Your task to perform on an android device: find which apps use the phone's location Image 0: 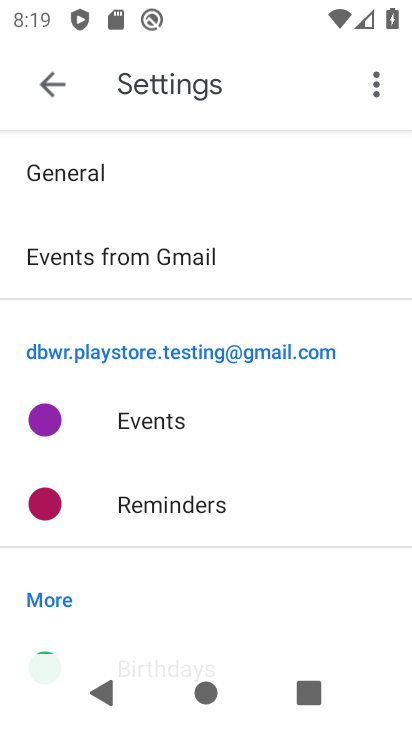
Step 0: press home button
Your task to perform on an android device: find which apps use the phone's location Image 1: 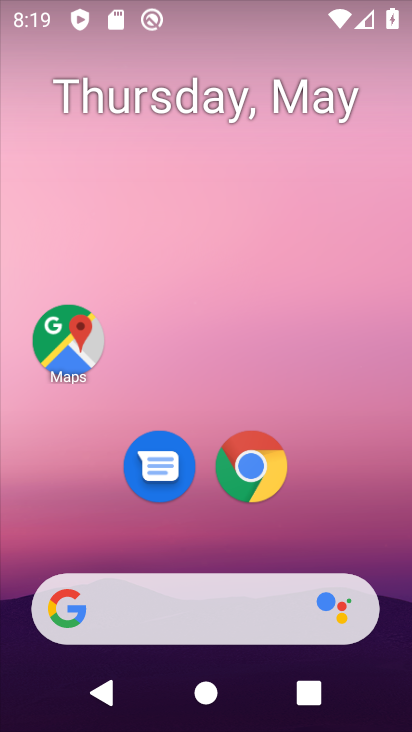
Step 1: drag from (364, 553) to (325, 135)
Your task to perform on an android device: find which apps use the phone's location Image 2: 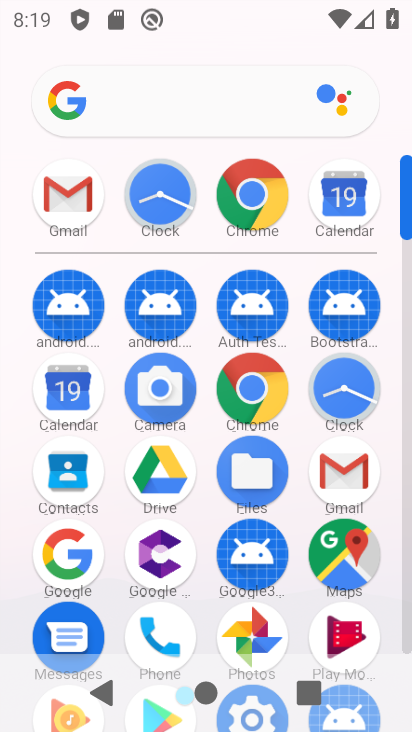
Step 2: click (407, 649)
Your task to perform on an android device: find which apps use the phone's location Image 3: 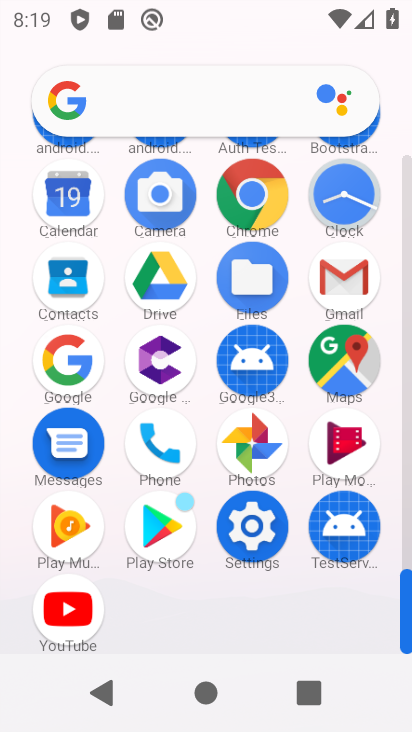
Step 3: click (264, 540)
Your task to perform on an android device: find which apps use the phone's location Image 4: 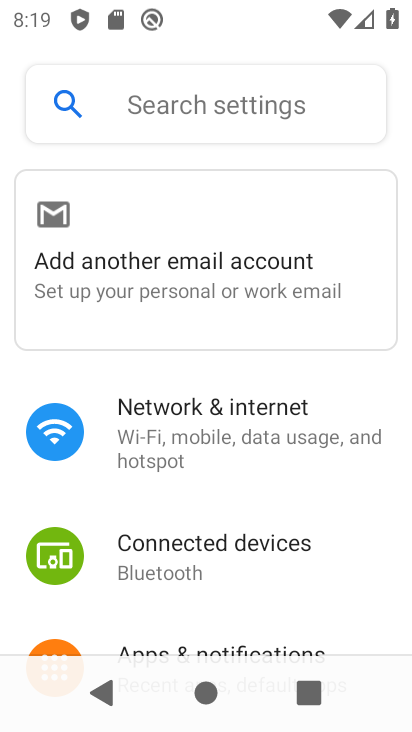
Step 4: drag from (331, 621) to (304, 48)
Your task to perform on an android device: find which apps use the phone's location Image 5: 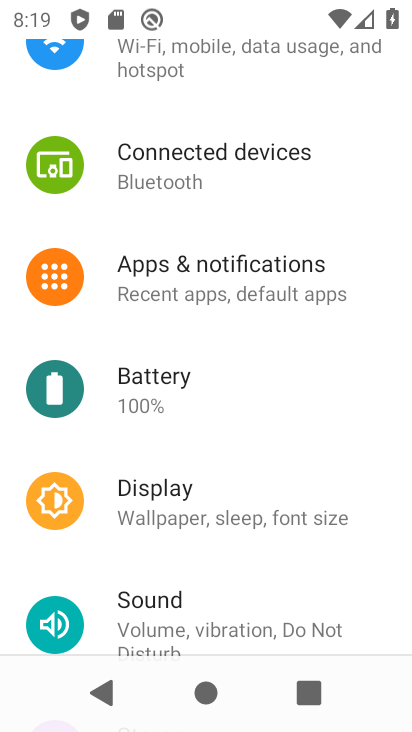
Step 5: drag from (258, 557) to (250, 132)
Your task to perform on an android device: find which apps use the phone's location Image 6: 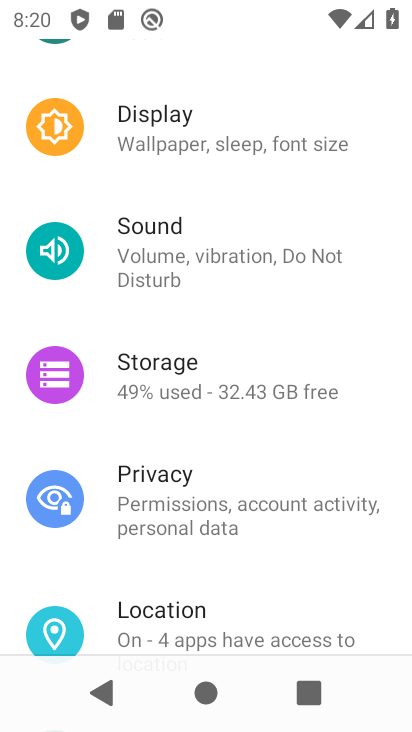
Step 6: click (234, 618)
Your task to perform on an android device: find which apps use the phone's location Image 7: 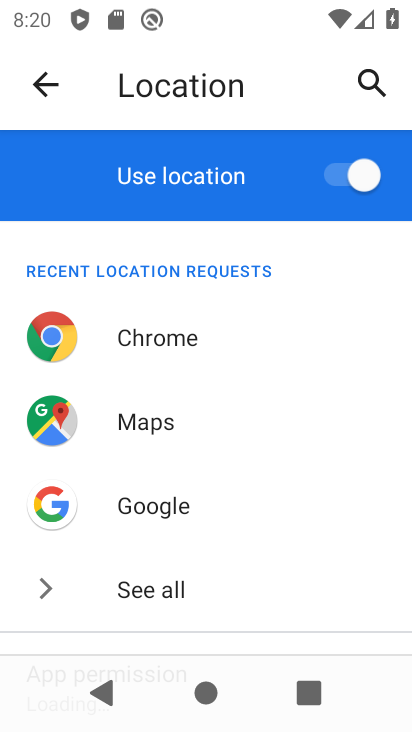
Step 7: drag from (248, 544) to (229, 109)
Your task to perform on an android device: find which apps use the phone's location Image 8: 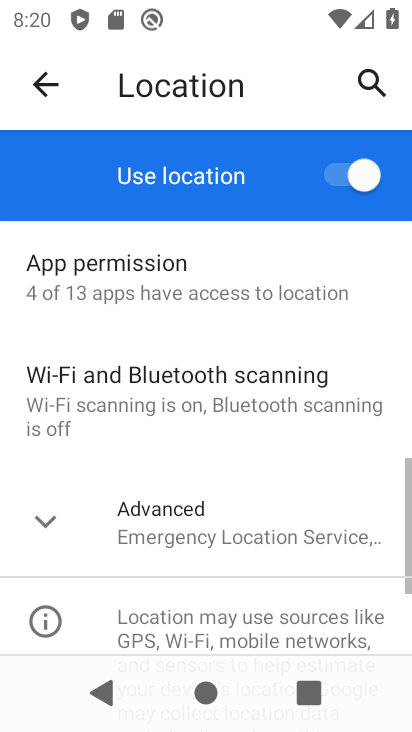
Step 8: click (234, 262)
Your task to perform on an android device: find which apps use the phone's location Image 9: 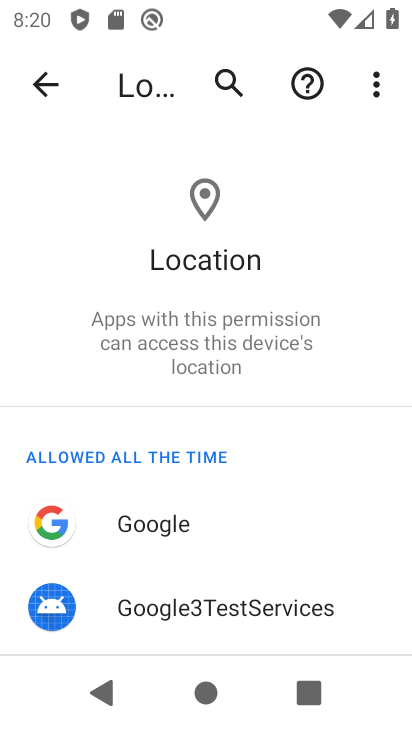
Step 9: task complete